Your task to perform on an android device: Open display settings Image 0: 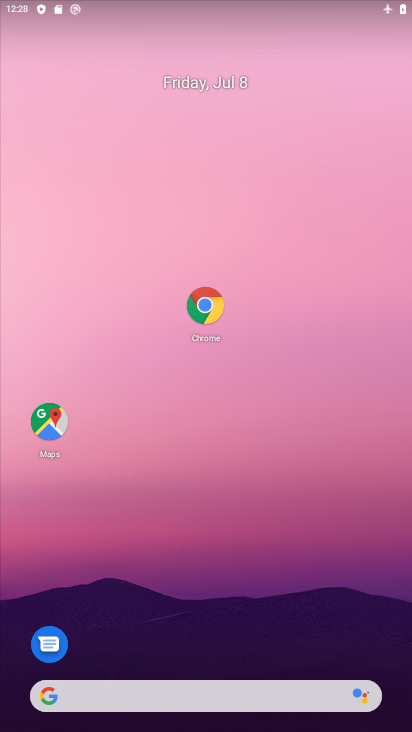
Step 0: drag from (195, 654) to (190, 203)
Your task to perform on an android device: Open display settings Image 1: 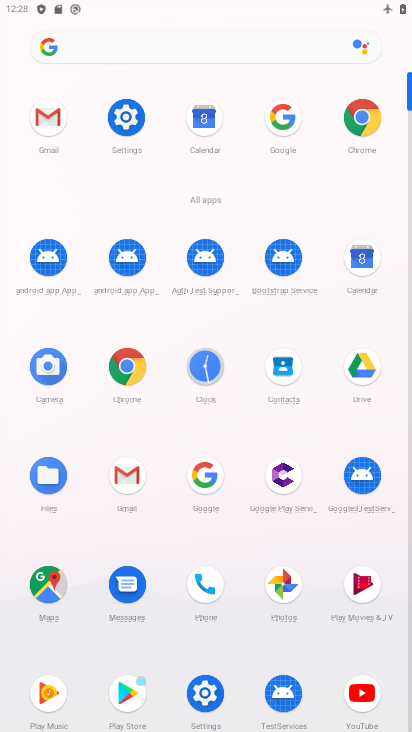
Step 1: click (124, 114)
Your task to perform on an android device: Open display settings Image 2: 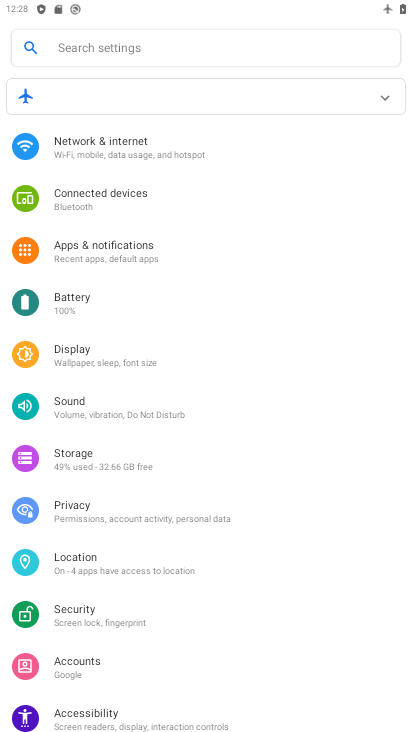
Step 2: click (79, 348)
Your task to perform on an android device: Open display settings Image 3: 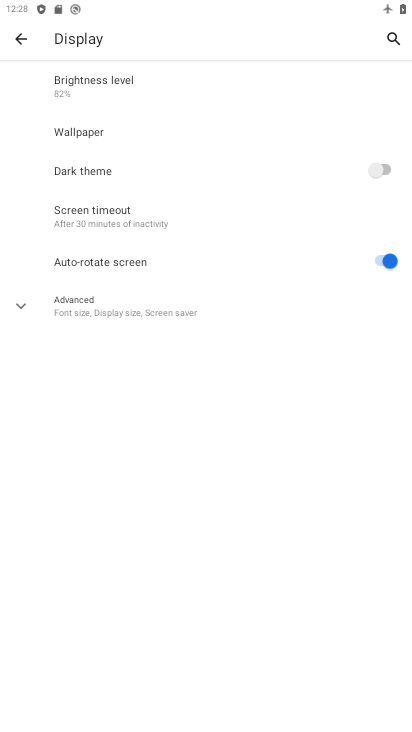
Step 3: click (73, 304)
Your task to perform on an android device: Open display settings Image 4: 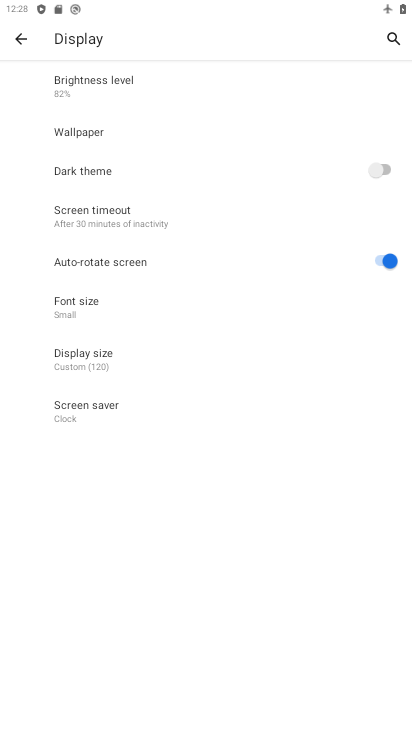
Step 4: task complete